Your task to perform on an android device: Open wifi settings Image 0: 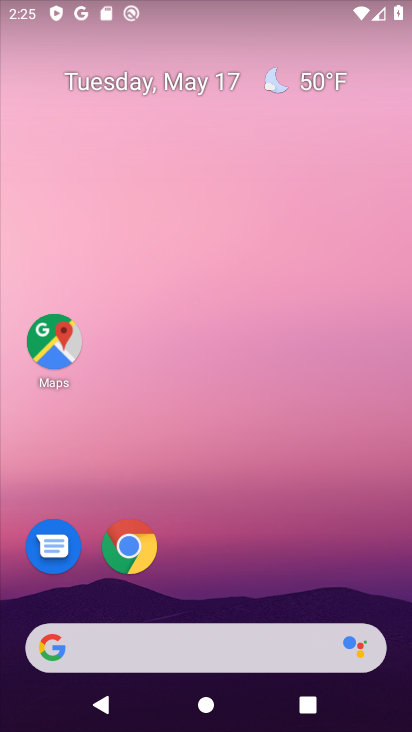
Step 0: drag from (218, 570) to (280, 6)
Your task to perform on an android device: Open wifi settings Image 1: 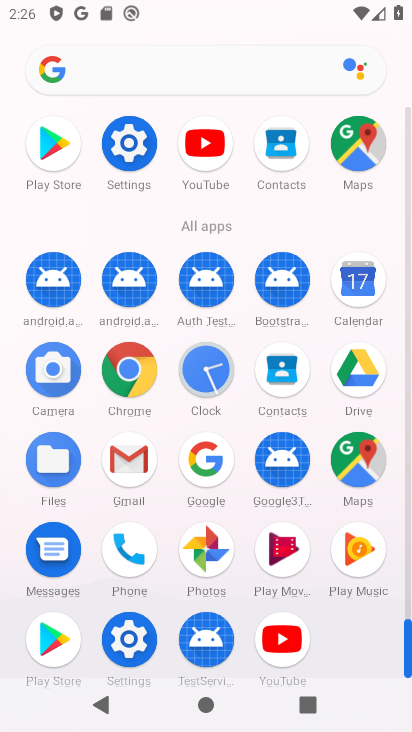
Step 1: click (127, 189)
Your task to perform on an android device: Open wifi settings Image 2: 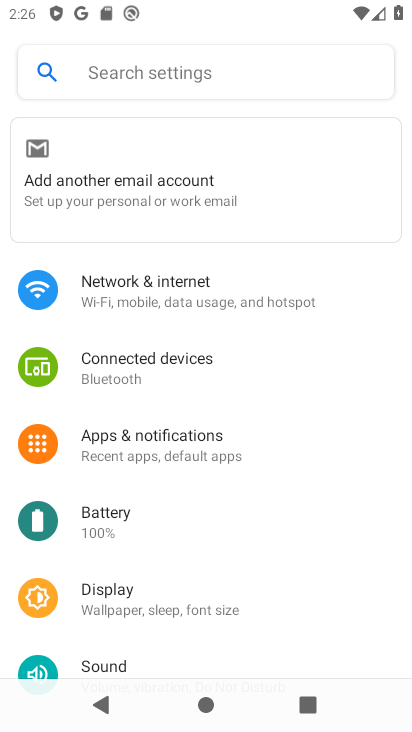
Step 2: click (170, 305)
Your task to perform on an android device: Open wifi settings Image 3: 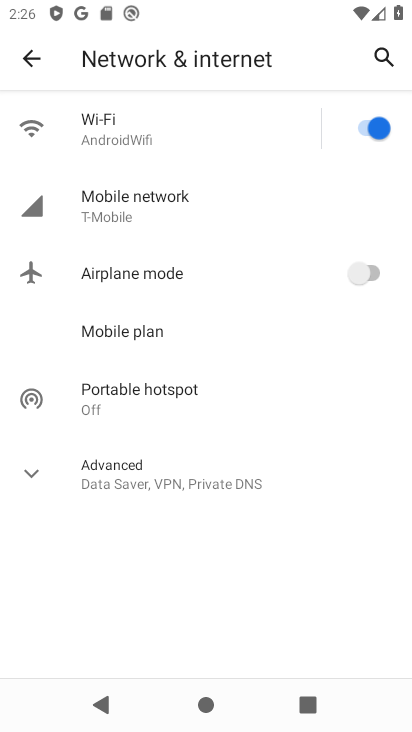
Step 3: click (193, 118)
Your task to perform on an android device: Open wifi settings Image 4: 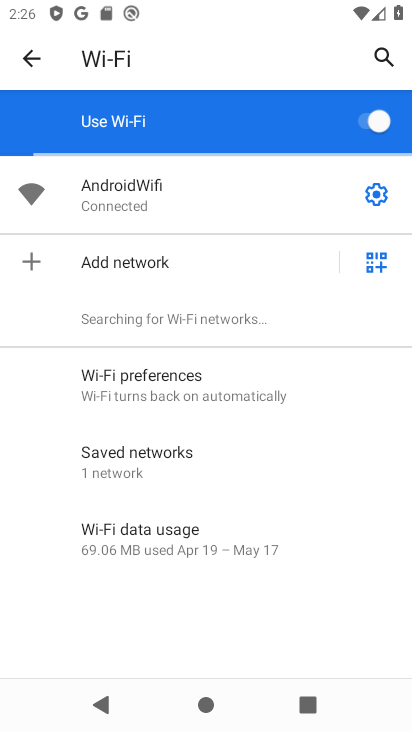
Step 4: task complete